Your task to perform on an android device: open a bookmark in the chrome app Image 0: 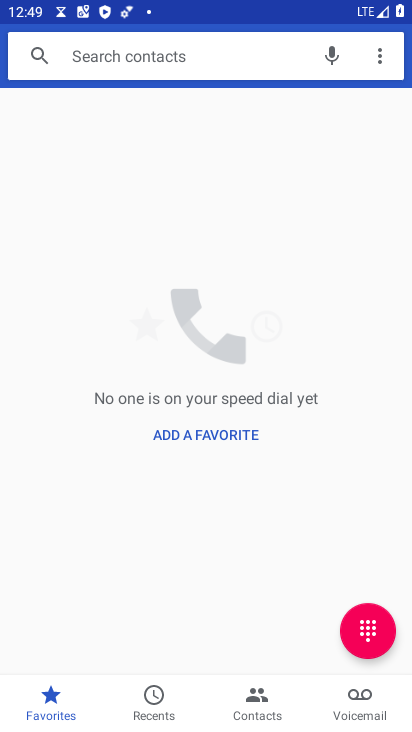
Step 0: press home button
Your task to perform on an android device: open a bookmark in the chrome app Image 1: 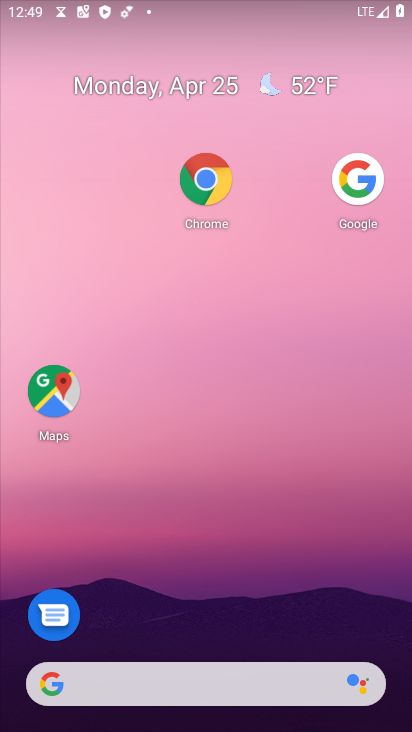
Step 1: click (215, 194)
Your task to perform on an android device: open a bookmark in the chrome app Image 2: 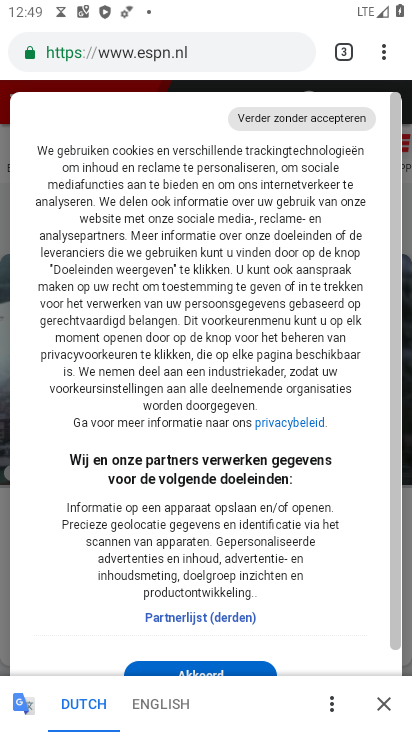
Step 2: drag from (385, 50) to (215, 262)
Your task to perform on an android device: open a bookmark in the chrome app Image 3: 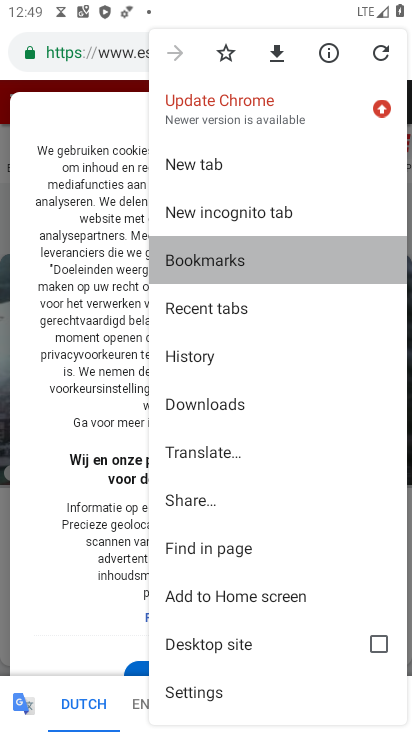
Step 3: click (215, 262)
Your task to perform on an android device: open a bookmark in the chrome app Image 4: 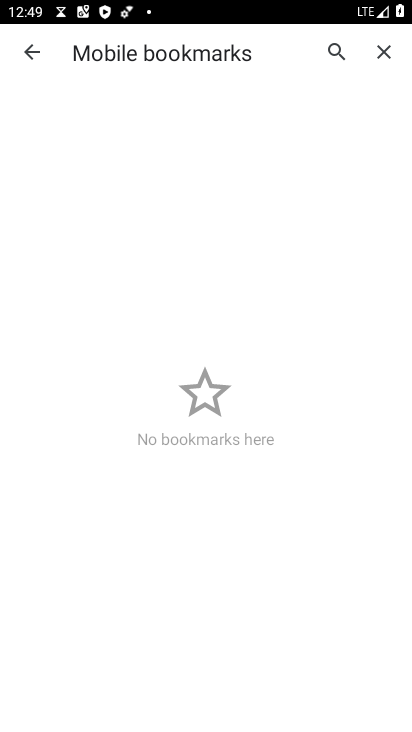
Step 4: task complete